Your task to perform on an android device: Show me recent news Image 0: 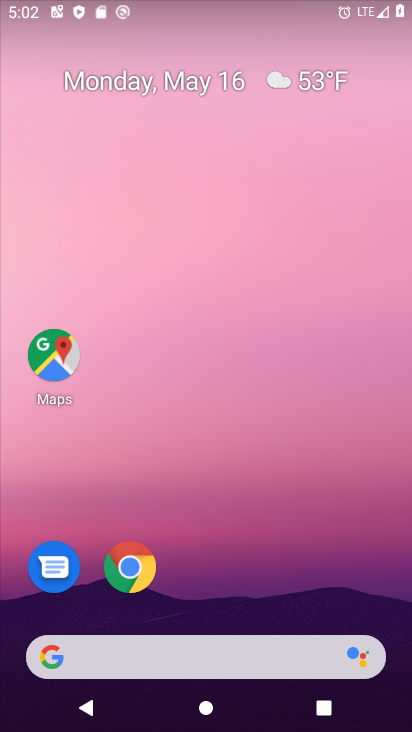
Step 0: drag from (225, 672) to (209, 61)
Your task to perform on an android device: Show me recent news Image 1: 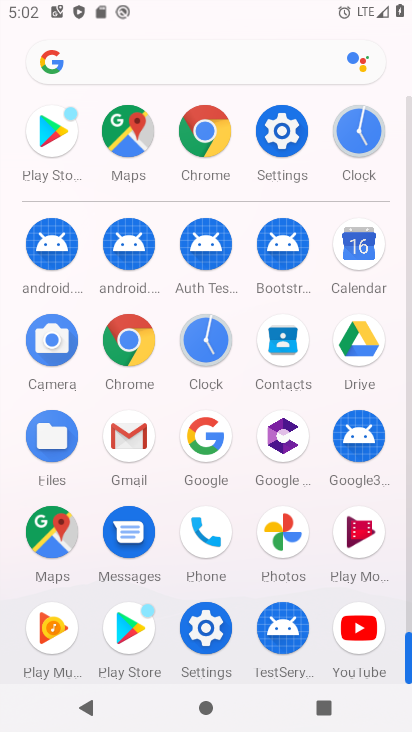
Step 1: click (107, 346)
Your task to perform on an android device: Show me recent news Image 2: 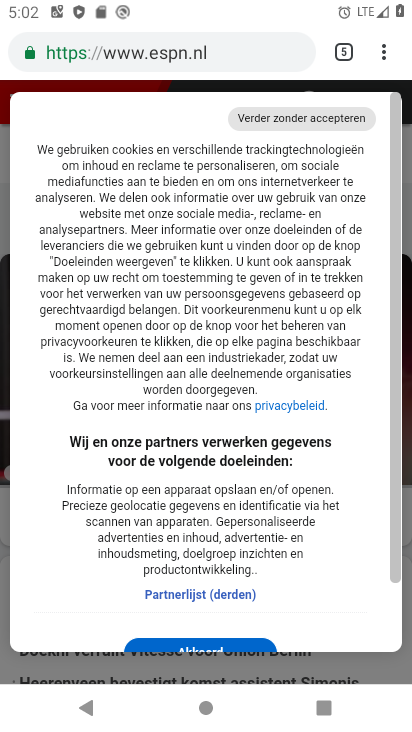
Step 2: click (231, 62)
Your task to perform on an android device: Show me recent news Image 3: 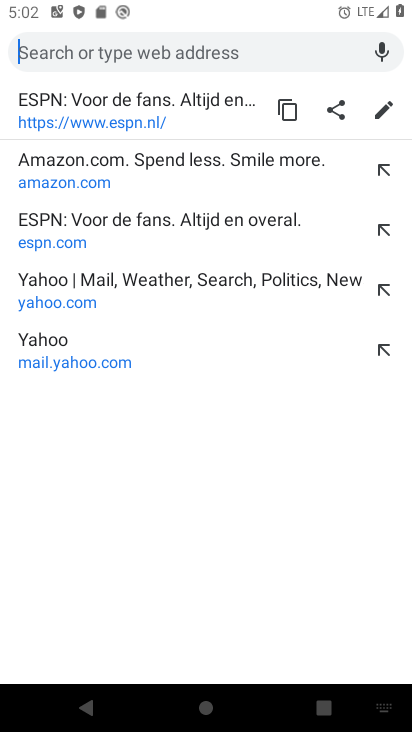
Step 3: type "recent news"
Your task to perform on an android device: Show me recent news Image 4: 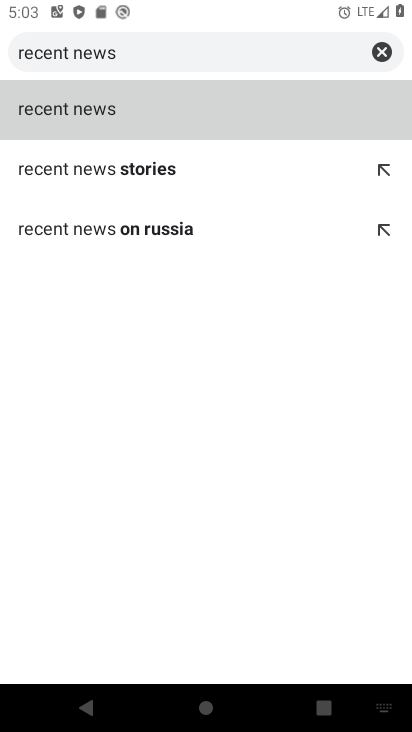
Step 4: click (327, 118)
Your task to perform on an android device: Show me recent news Image 5: 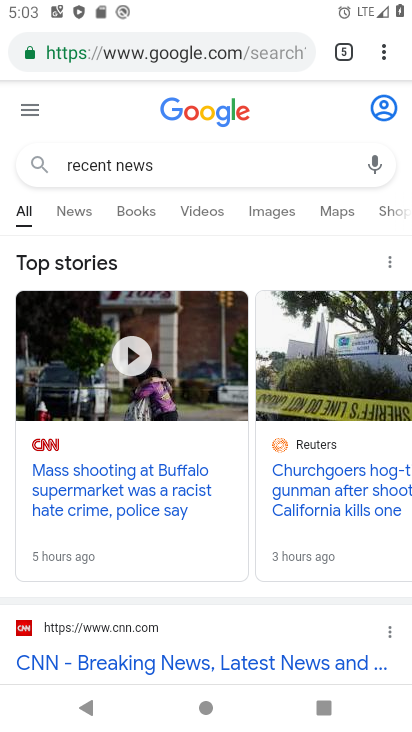
Step 5: task complete